Your task to perform on an android device: Open my contact list Image 0: 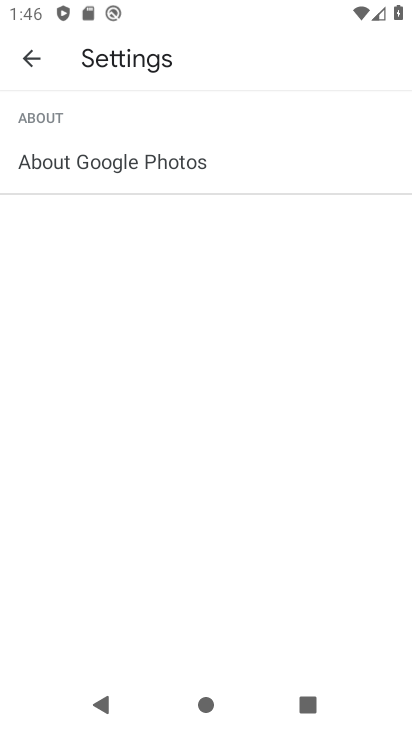
Step 0: press home button
Your task to perform on an android device: Open my contact list Image 1: 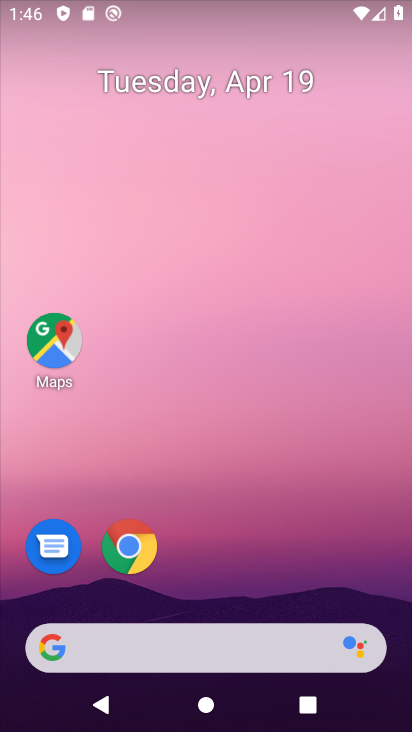
Step 1: drag from (172, 3) to (13, 31)
Your task to perform on an android device: Open my contact list Image 2: 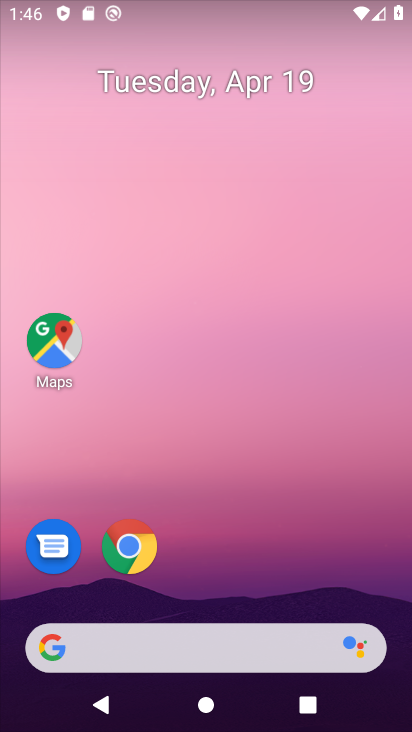
Step 2: drag from (200, 623) to (97, 76)
Your task to perform on an android device: Open my contact list Image 3: 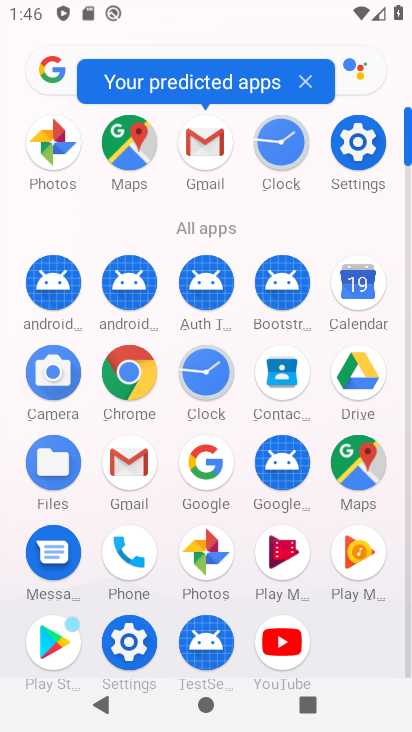
Step 3: click (284, 373)
Your task to perform on an android device: Open my contact list Image 4: 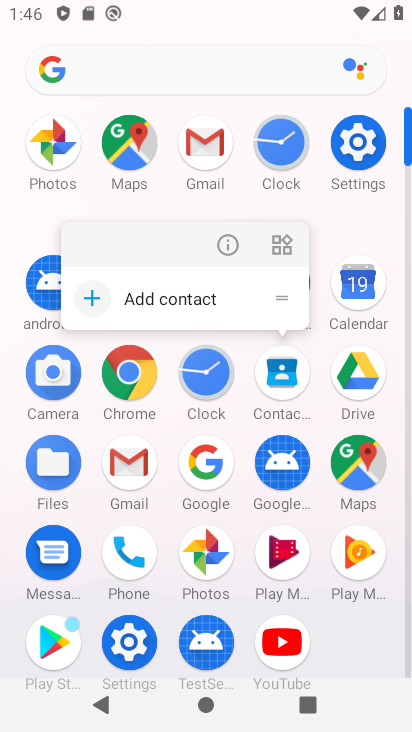
Step 4: click (275, 377)
Your task to perform on an android device: Open my contact list Image 5: 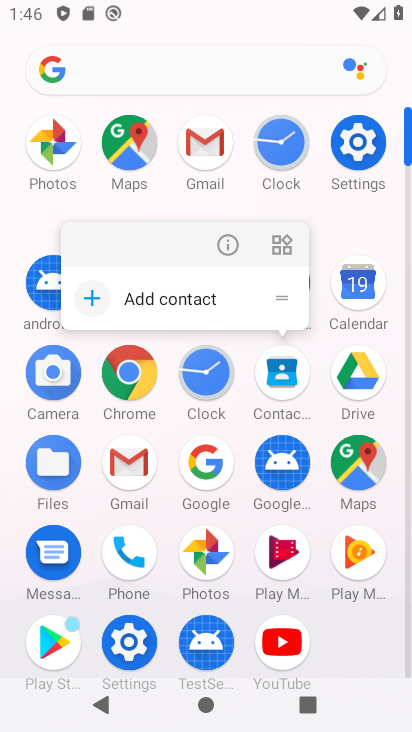
Step 5: click (275, 377)
Your task to perform on an android device: Open my contact list Image 6: 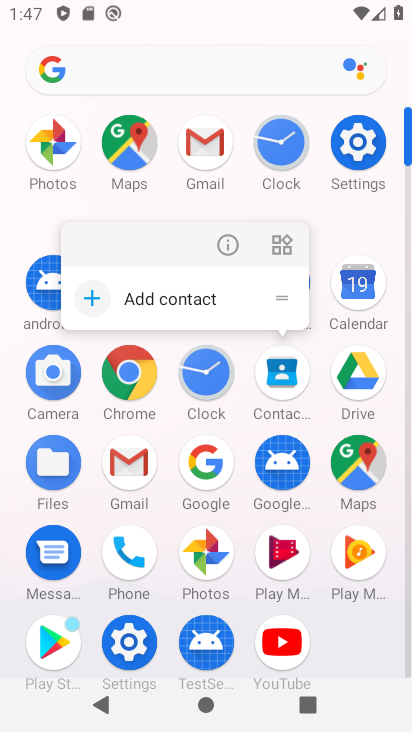
Step 6: click (275, 377)
Your task to perform on an android device: Open my contact list Image 7: 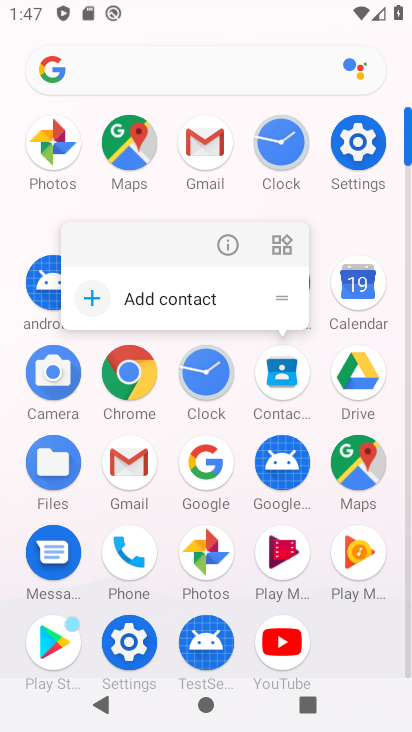
Step 7: click (275, 377)
Your task to perform on an android device: Open my contact list Image 8: 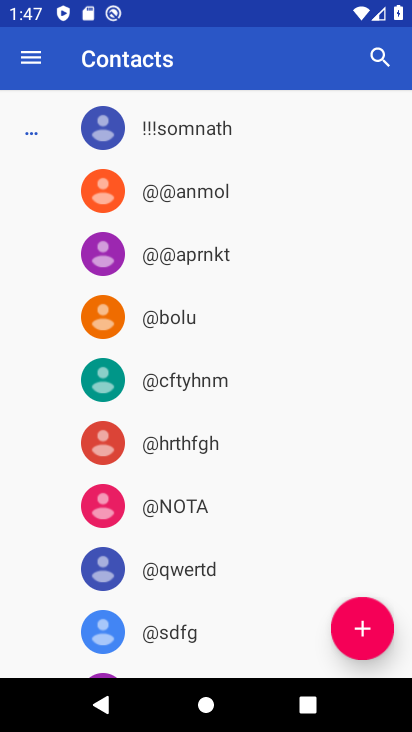
Step 8: task complete